Your task to perform on an android device: empty trash in google photos Image 0: 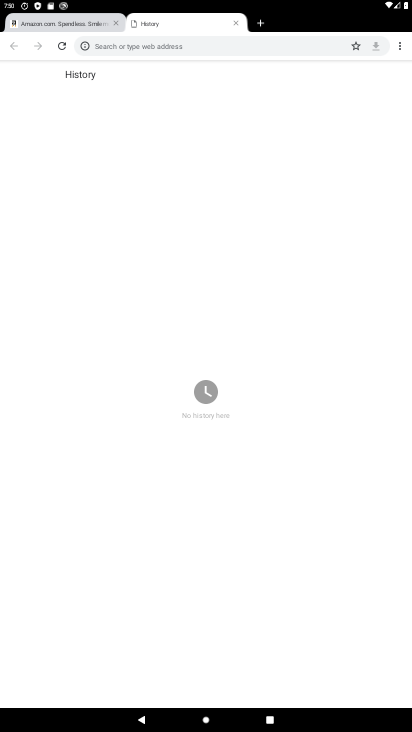
Step 0: press home button
Your task to perform on an android device: empty trash in google photos Image 1: 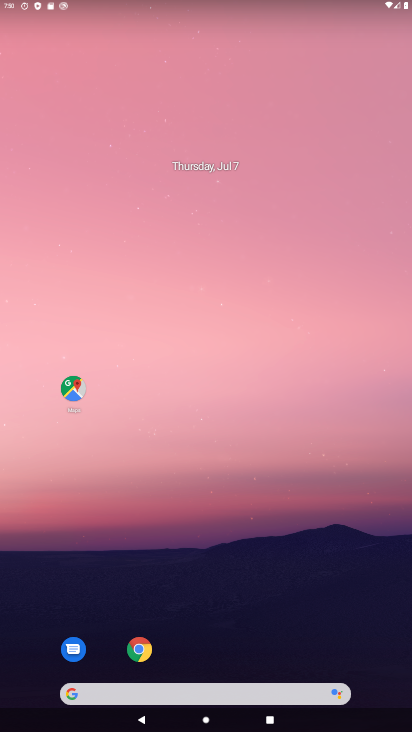
Step 1: drag from (191, 661) to (220, 200)
Your task to perform on an android device: empty trash in google photos Image 2: 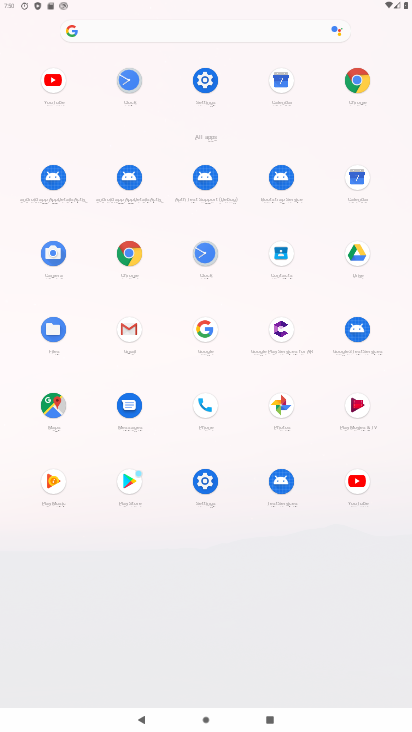
Step 2: click (283, 397)
Your task to perform on an android device: empty trash in google photos Image 3: 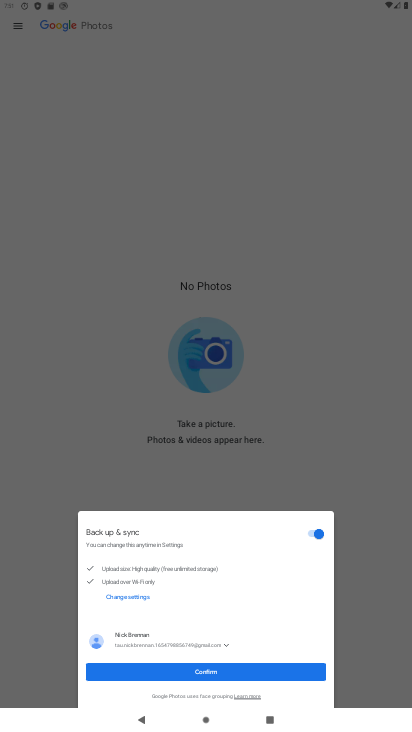
Step 3: click (203, 673)
Your task to perform on an android device: empty trash in google photos Image 4: 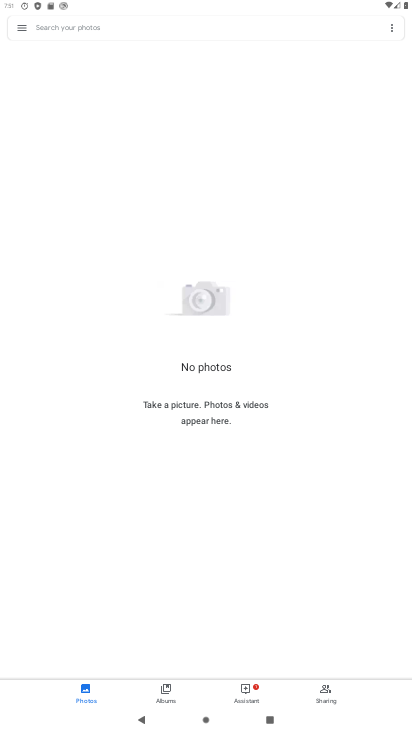
Step 4: click (21, 26)
Your task to perform on an android device: empty trash in google photos Image 5: 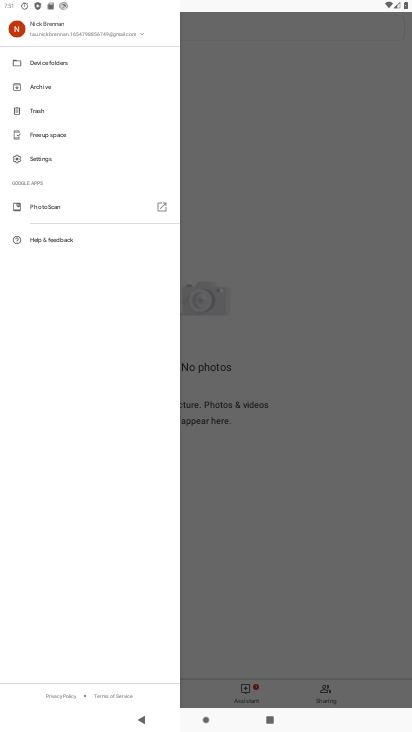
Step 5: click (34, 110)
Your task to perform on an android device: empty trash in google photos Image 6: 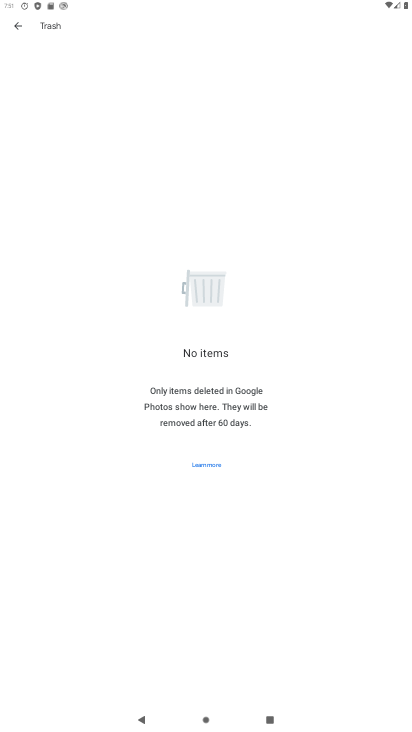
Step 6: task complete